Your task to perform on an android device: Add logitech g903 to the cart on walmart, then select checkout. Image 0: 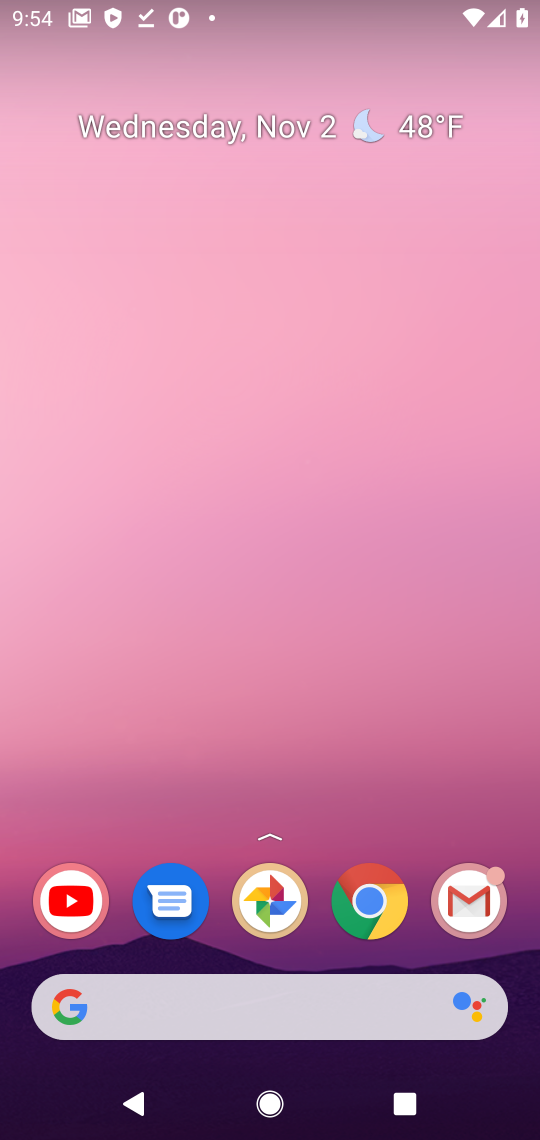
Step 0: click (384, 916)
Your task to perform on an android device: Add logitech g903 to the cart on walmart, then select checkout. Image 1: 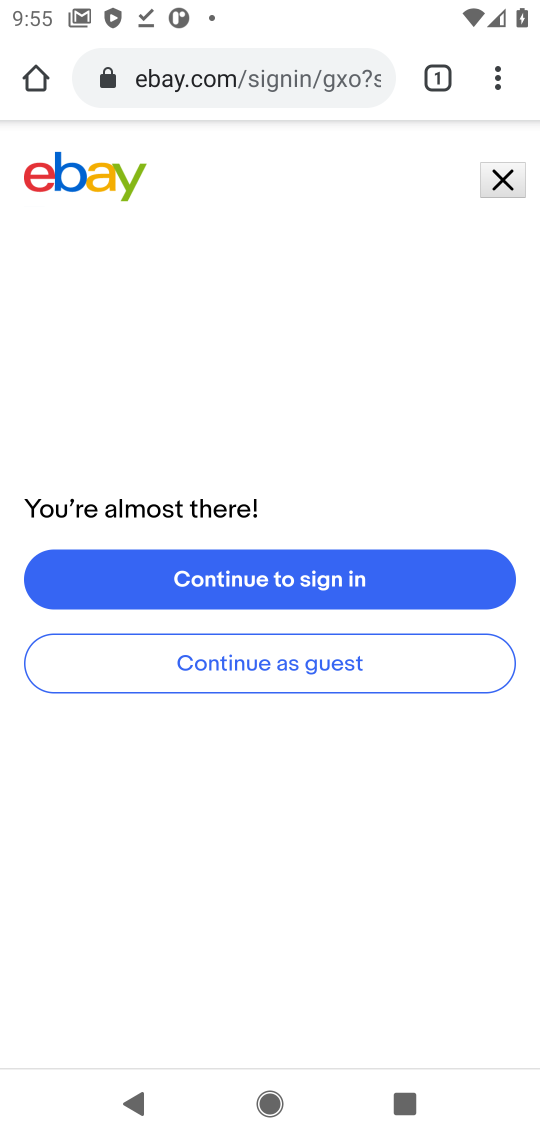
Step 1: click (264, 79)
Your task to perform on an android device: Add logitech g903 to the cart on walmart, then select checkout. Image 2: 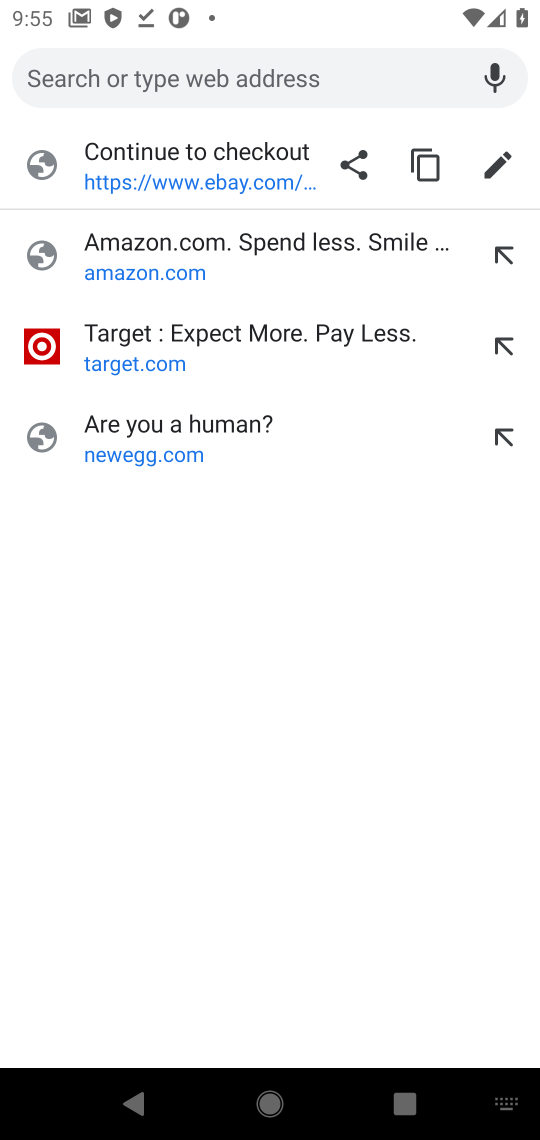
Step 2: type "walmart"
Your task to perform on an android device: Add logitech g903 to the cart on walmart, then select checkout. Image 3: 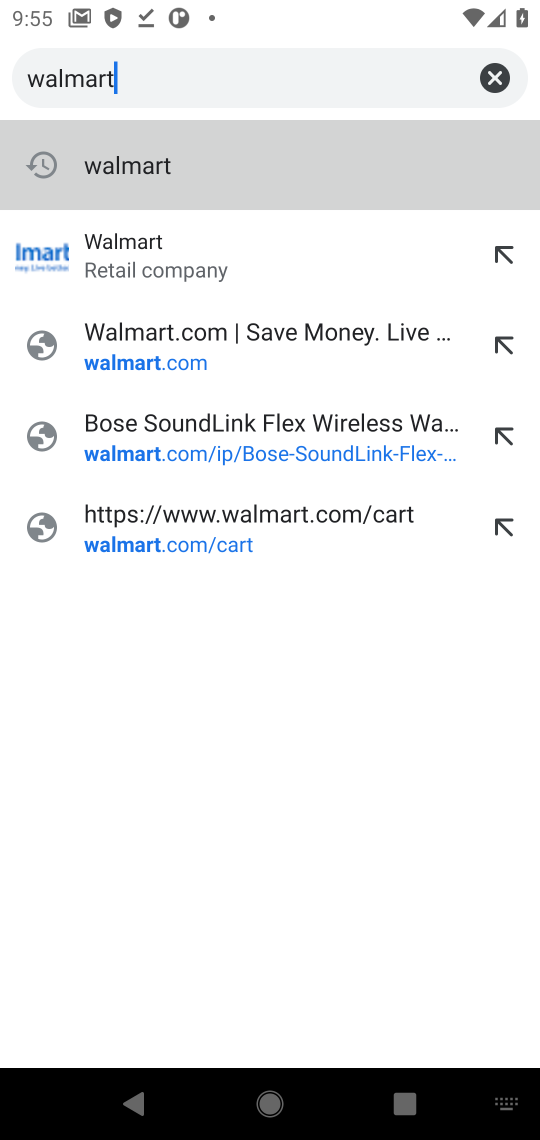
Step 3: click (83, 162)
Your task to perform on an android device: Add logitech g903 to the cart on walmart, then select checkout. Image 4: 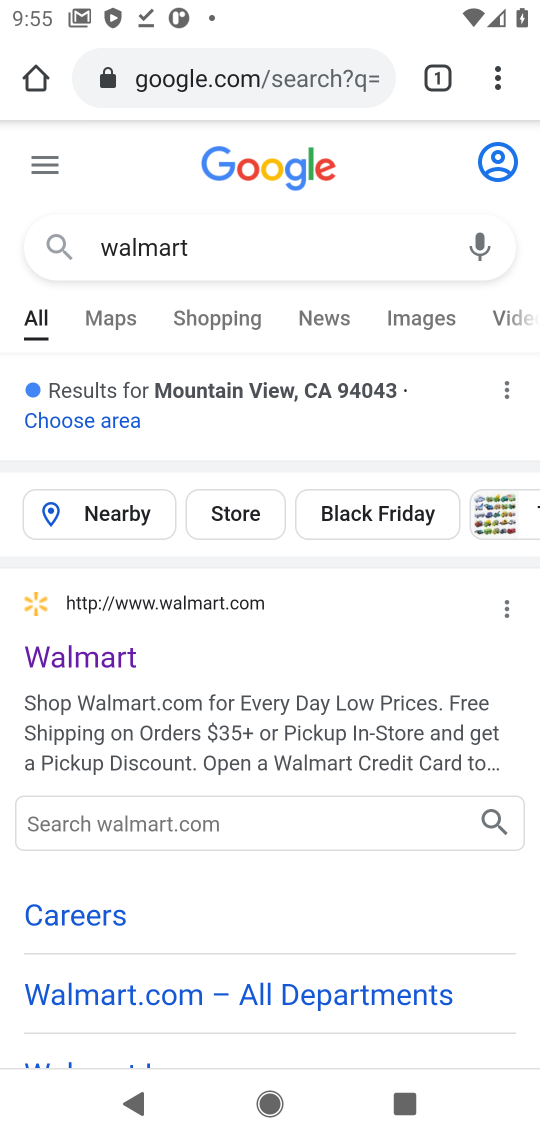
Step 4: click (79, 656)
Your task to perform on an android device: Add logitech g903 to the cart on walmart, then select checkout. Image 5: 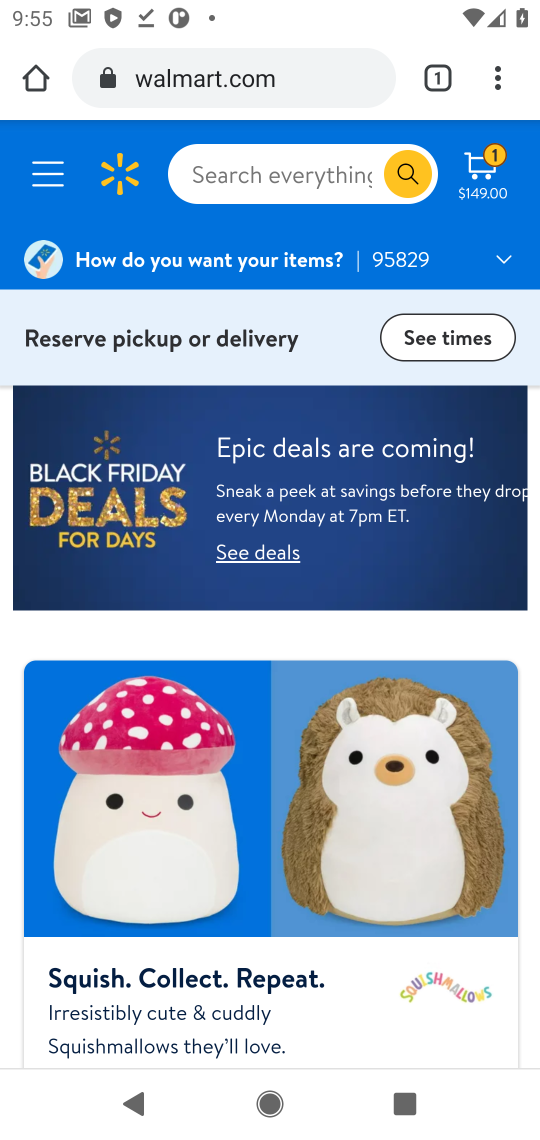
Step 5: click (304, 169)
Your task to perform on an android device: Add logitech g903 to the cart on walmart, then select checkout. Image 6: 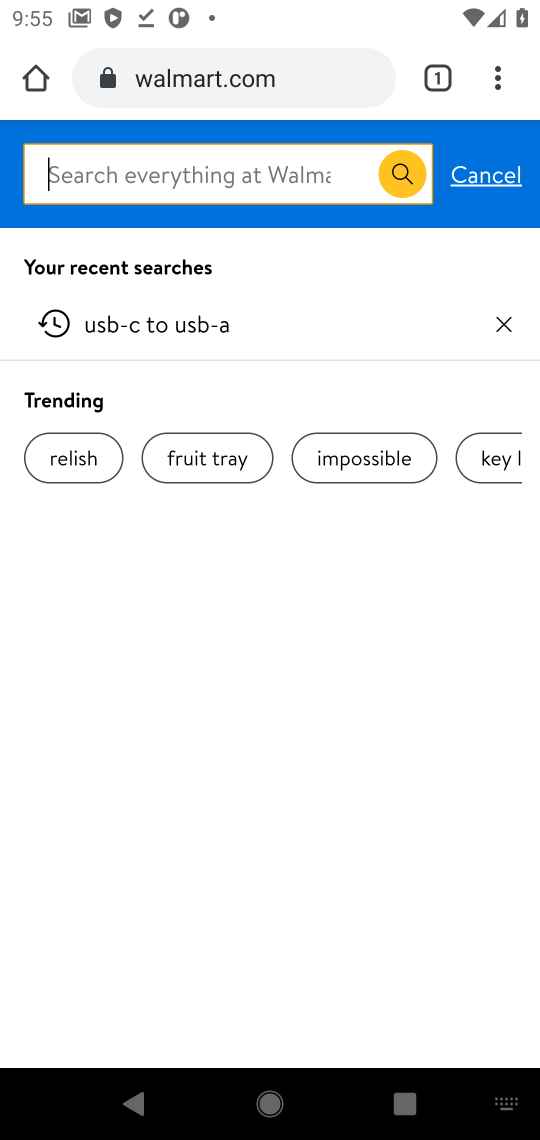
Step 6: type "logitech g903"
Your task to perform on an android device: Add logitech g903 to the cart on walmart, then select checkout. Image 7: 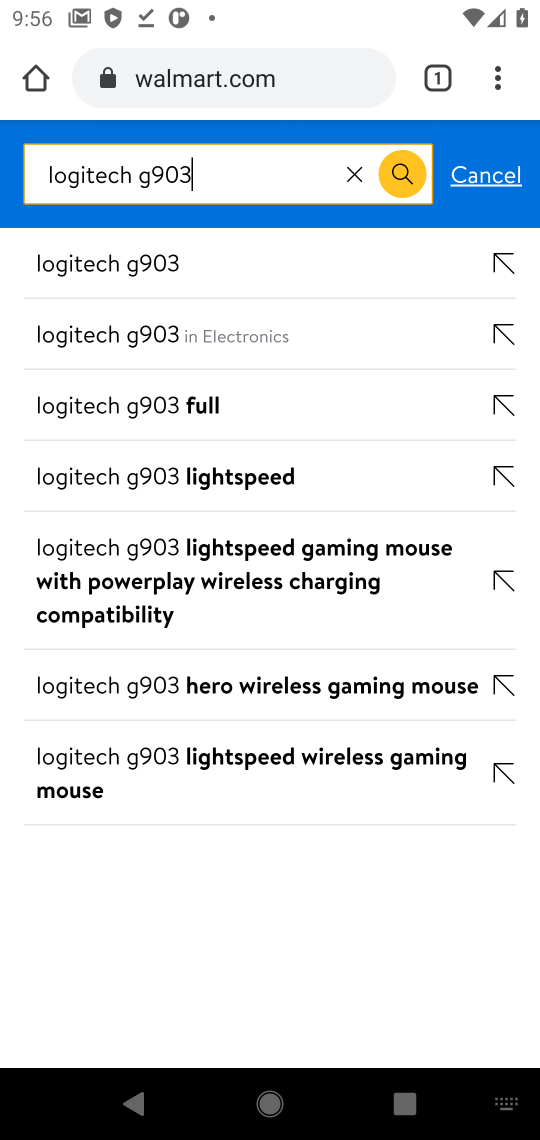
Step 7: click (118, 274)
Your task to perform on an android device: Add logitech g903 to the cart on walmart, then select checkout. Image 8: 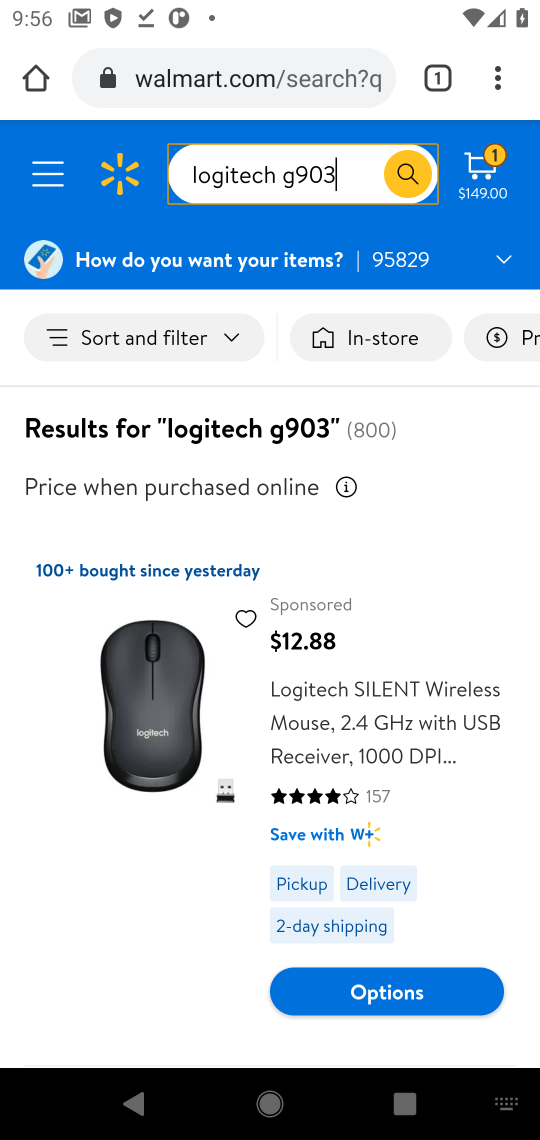
Step 8: drag from (441, 577) to (425, 328)
Your task to perform on an android device: Add logitech g903 to the cart on walmart, then select checkout. Image 9: 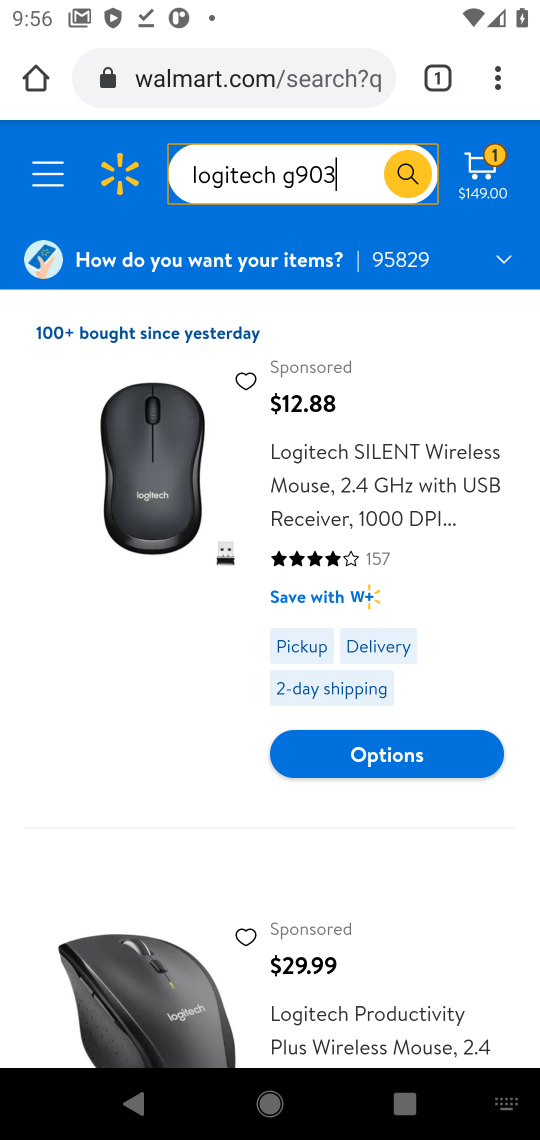
Step 9: drag from (501, 855) to (506, 1139)
Your task to perform on an android device: Add logitech g903 to the cart on walmart, then select checkout. Image 10: 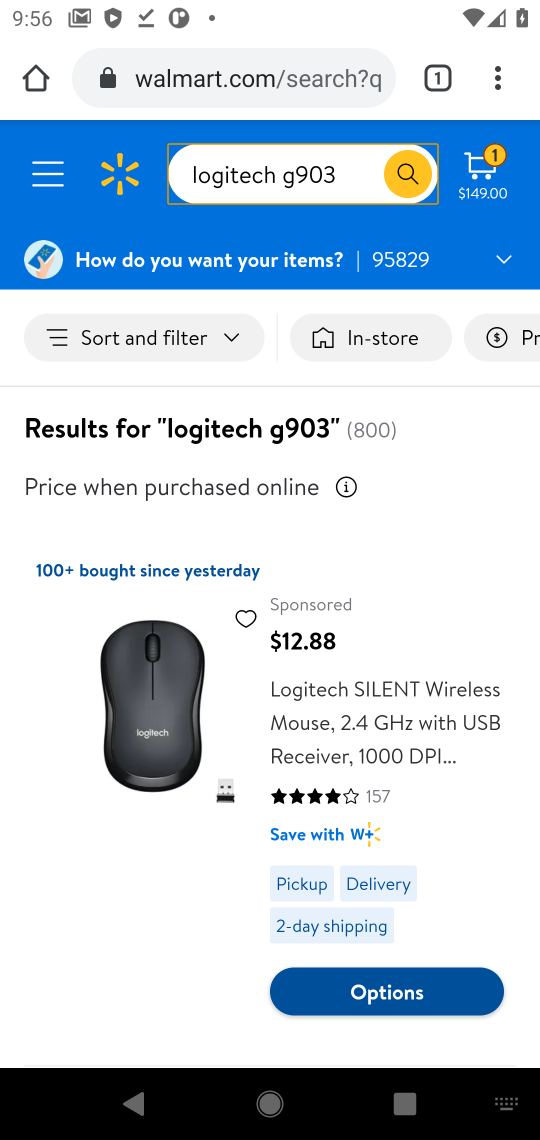
Step 10: click (159, 728)
Your task to perform on an android device: Add logitech g903 to the cart on walmart, then select checkout. Image 11: 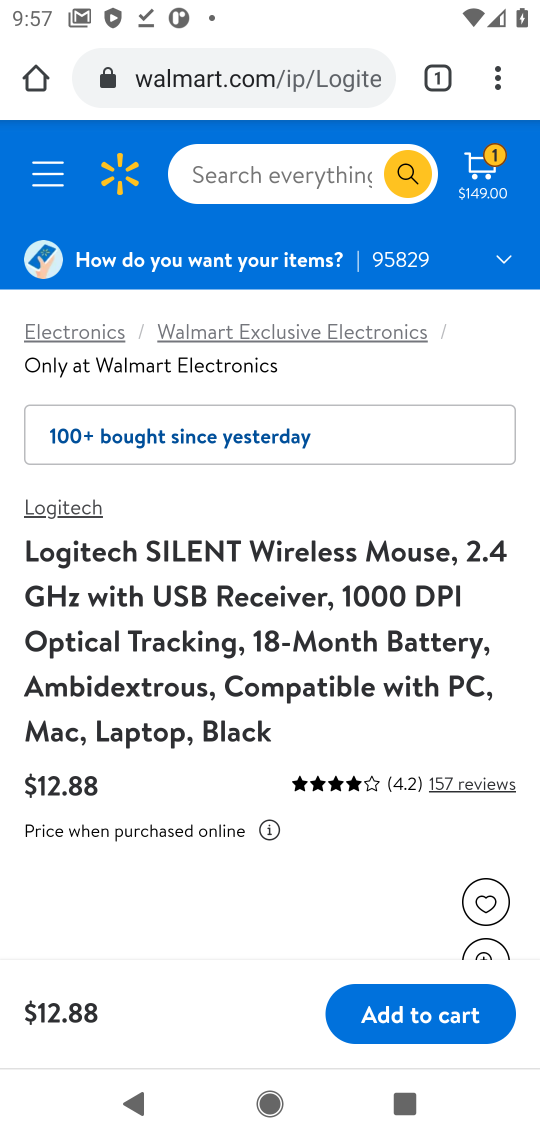
Step 11: press back button
Your task to perform on an android device: Add logitech g903 to the cart on walmart, then select checkout. Image 12: 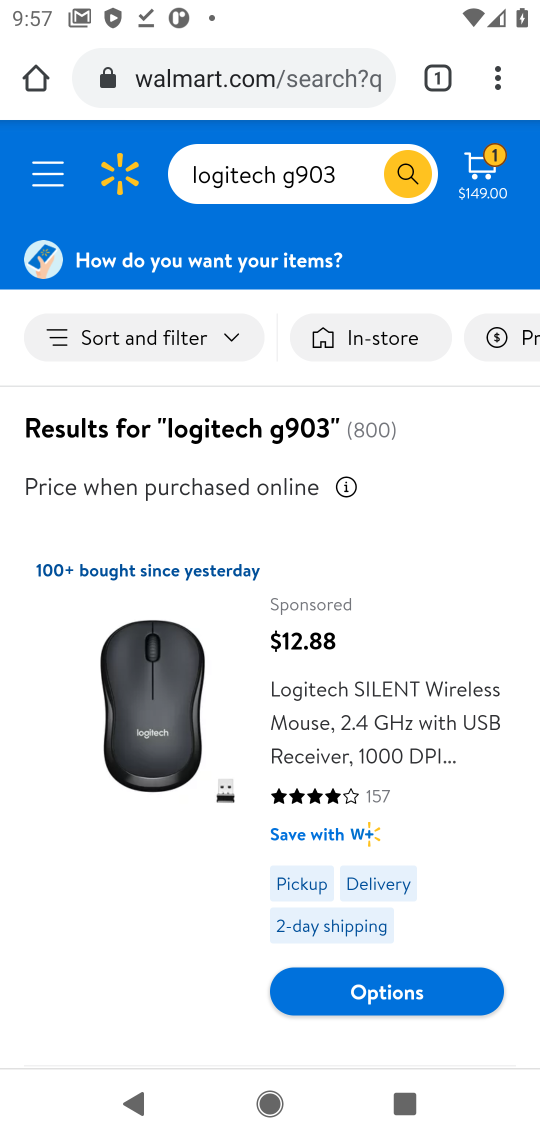
Step 12: drag from (176, 918) to (230, 45)
Your task to perform on an android device: Add logitech g903 to the cart on walmart, then select checkout. Image 13: 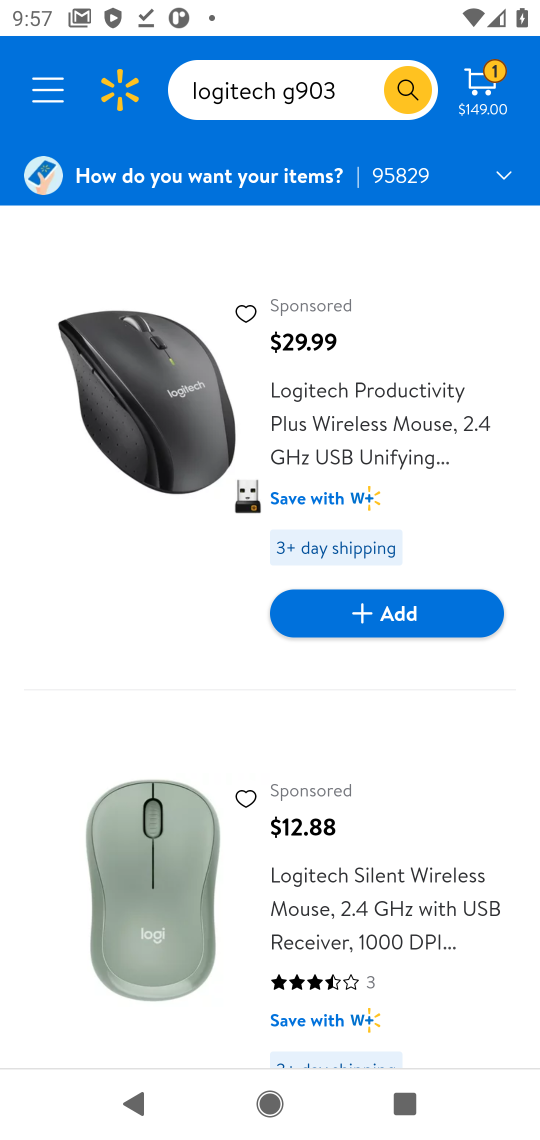
Step 13: drag from (488, 749) to (480, 198)
Your task to perform on an android device: Add logitech g903 to the cart on walmart, then select checkout. Image 14: 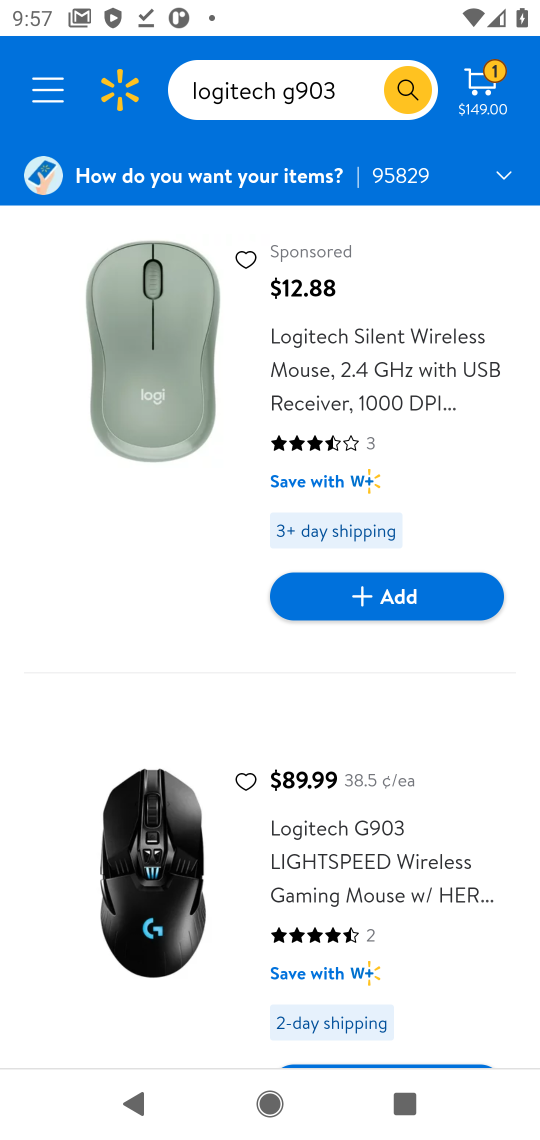
Step 14: click (152, 926)
Your task to perform on an android device: Add logitech g903 to the cart on walmart, then select checkout. Image 15: 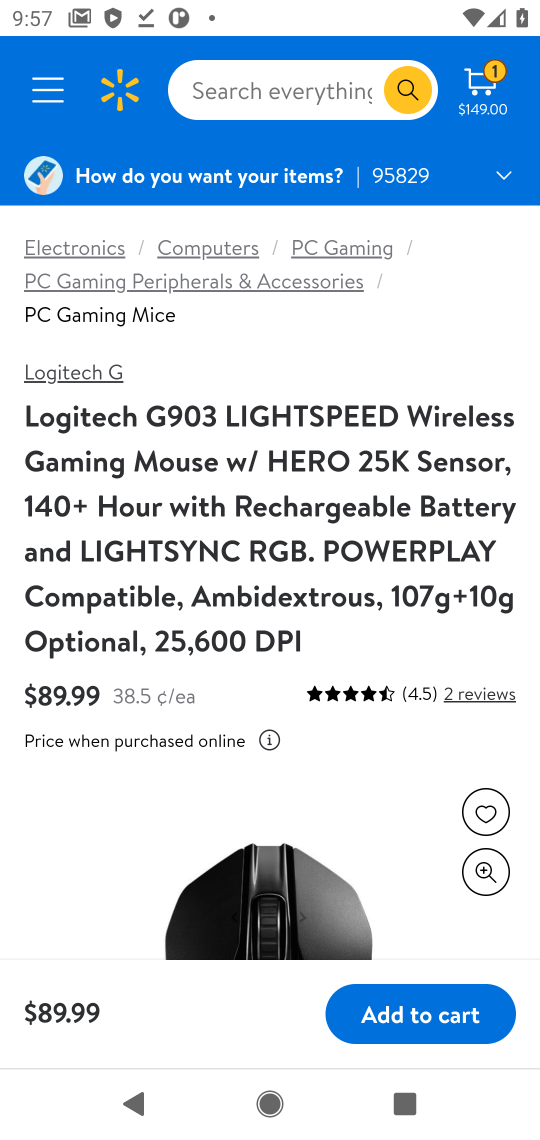
Step 15: click (413, 1004)
Your task to perform on an android device: Add logitech g903 to the cart on walmart, then select checkout. Image 16: 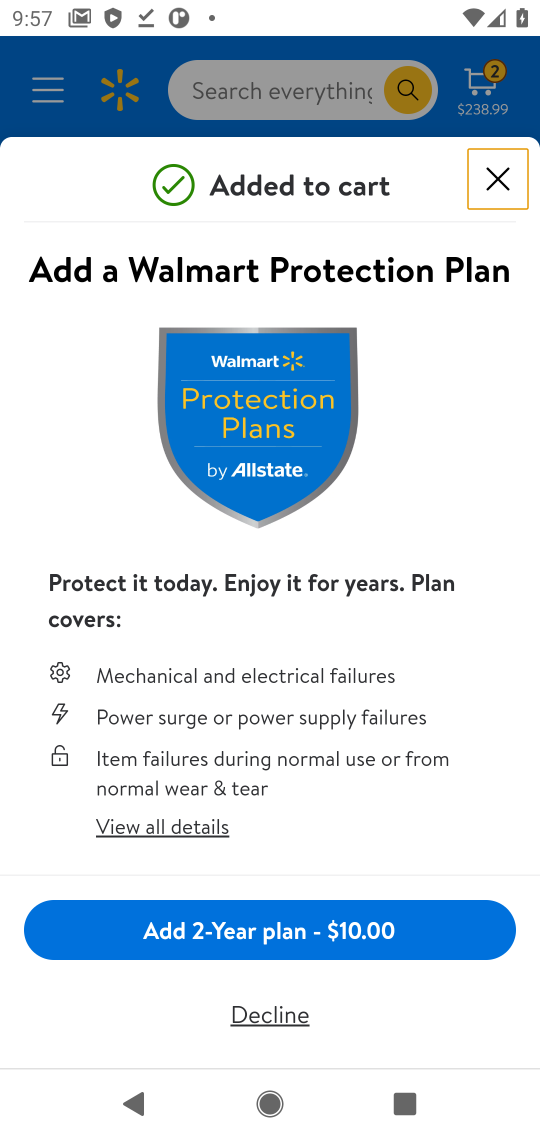
Step 16: click (269, 1014)
Your task to perform on an android device: Add logitech g903 to the cart on walmart, then select checkout. Image 17: 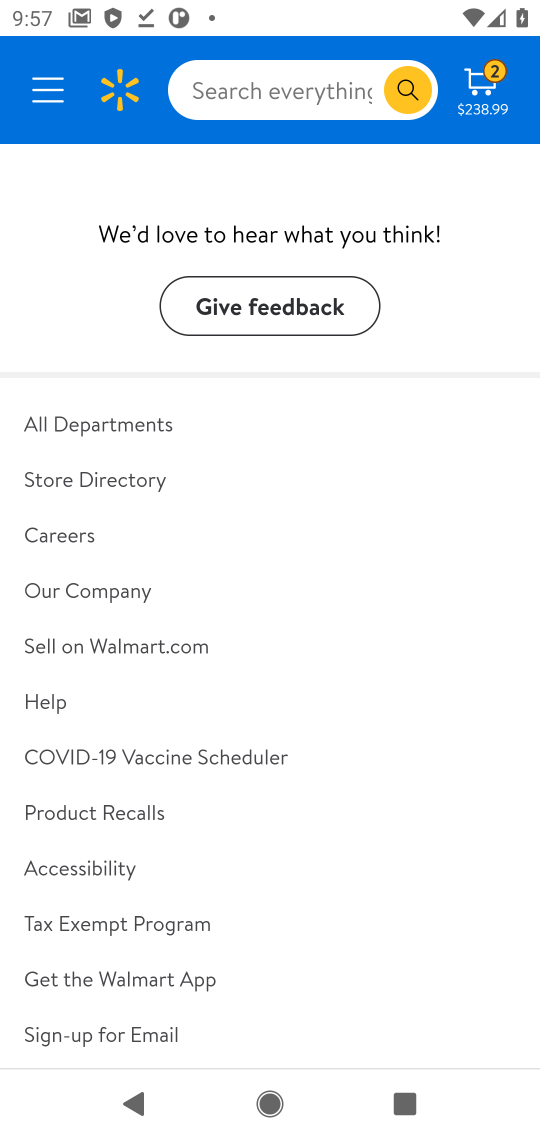
Step 17: click (486, 102)
Your task to perform on an android device: Add logitech g903 to the cart on walmart, then select checkout. Image 18: 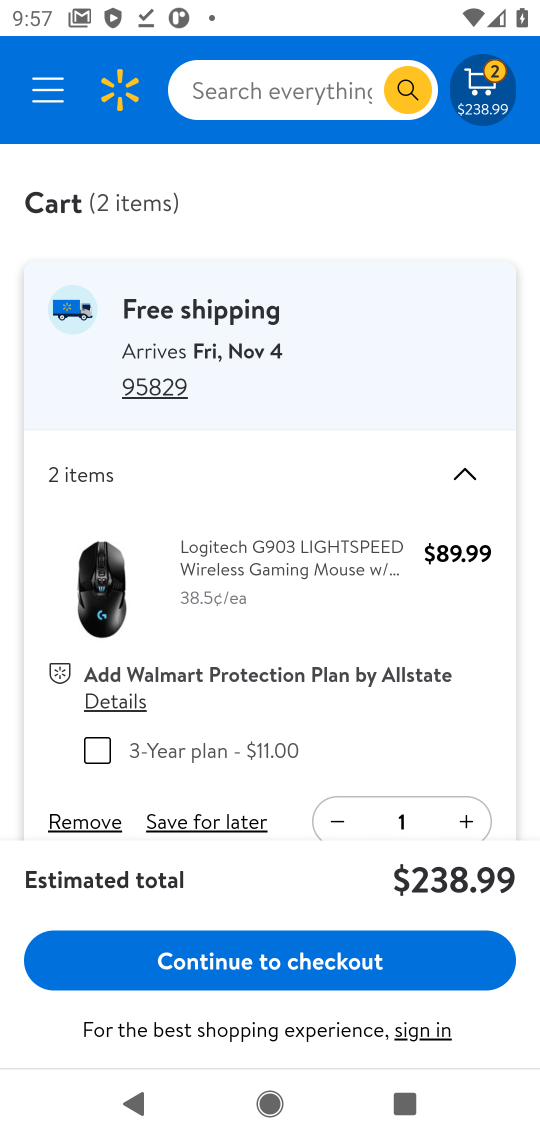
Step 18: click (334, 962)
Your task to perform on an android device: Add logitech g903 to the cart on walmart, then select checkout. Image 19: 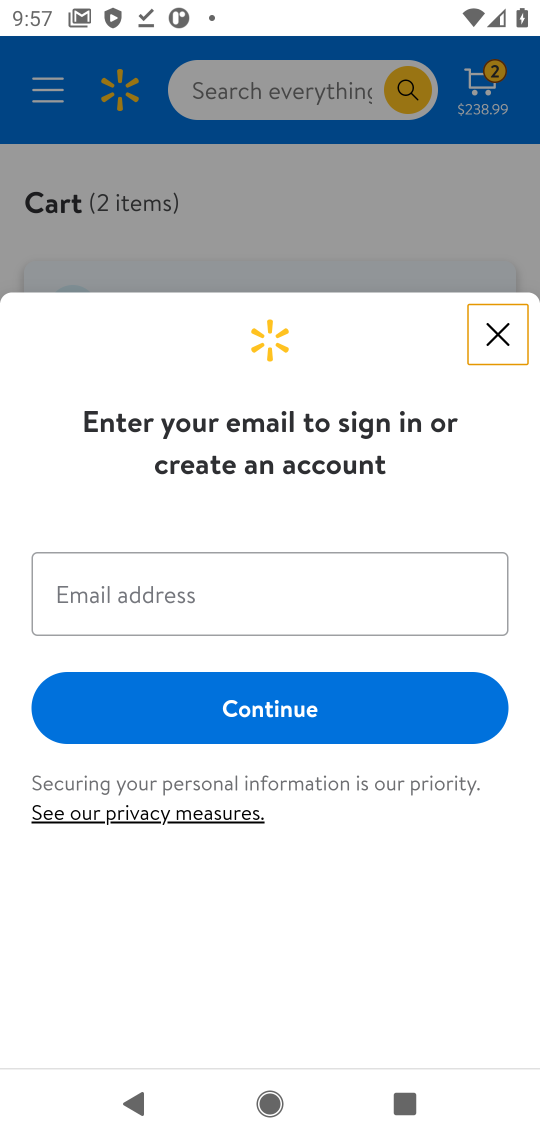
Step 19: task complete